Your task to perform on an android device: turn off location history Image 0: 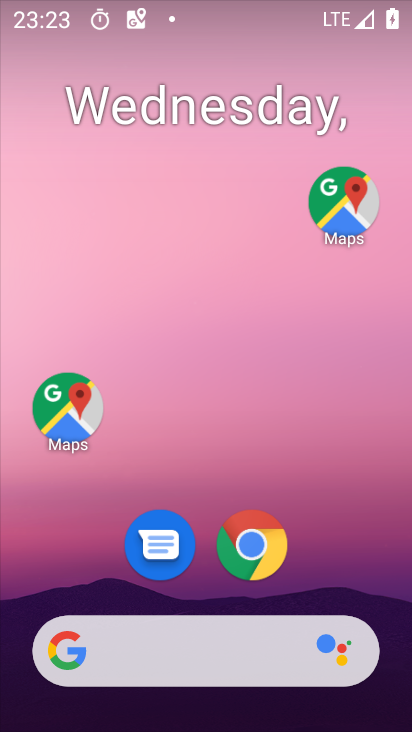
Step 0: drag from (358, 618) to (351, 45)
Your task to perform on an android device: turn off location history Image 1: 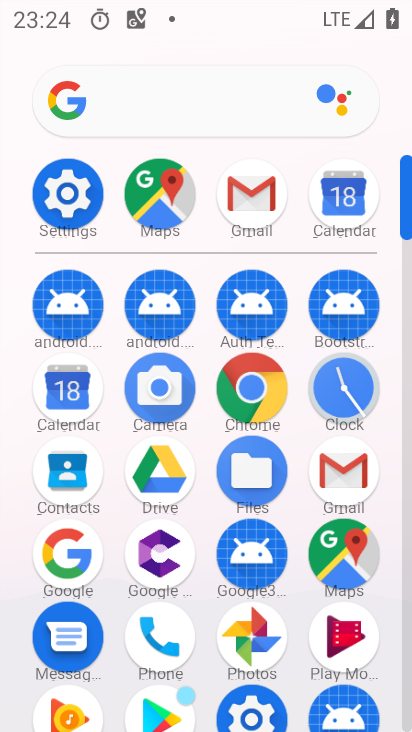
Step 1: click (64, 204)
Your task to perform on an android device: turn off location history Image 2: 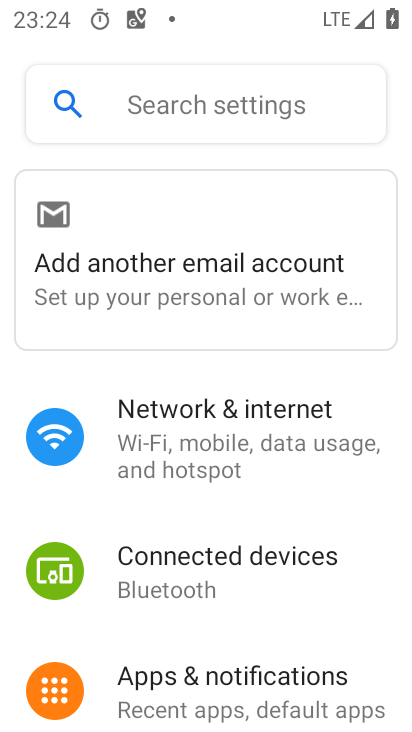
Step 2: drag from (209, 619) to (240, 174)
Your task to perform on an android device: turn off location history Image 3: 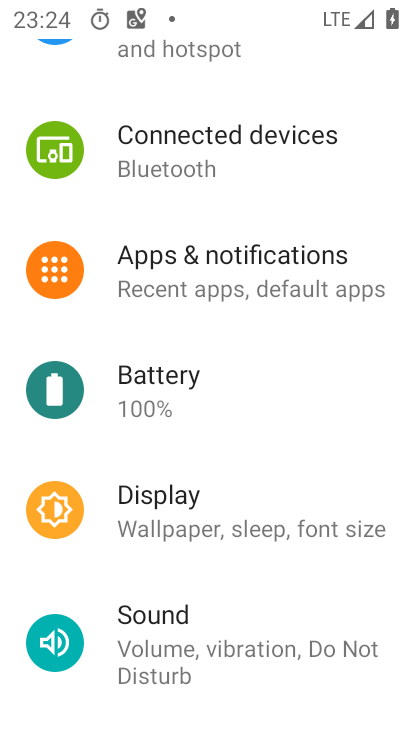
Step 3: drag from (159, 582) to (243, 87)
Your task to perform on an android device: turn off location history Image 4: 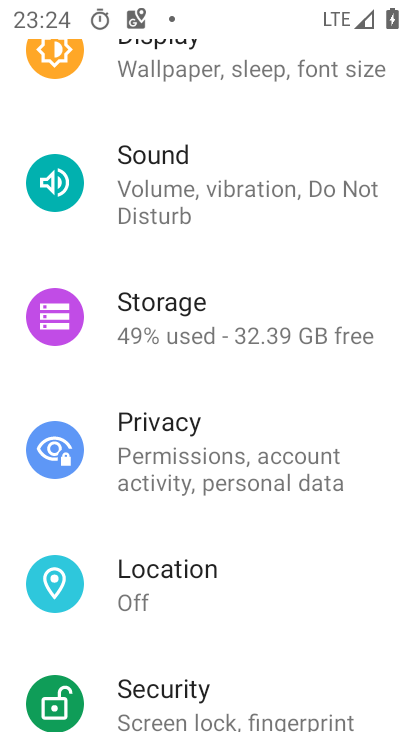
Step 4: click (232, 583)
Your task to perform on an android device: turn off location history Image 5: 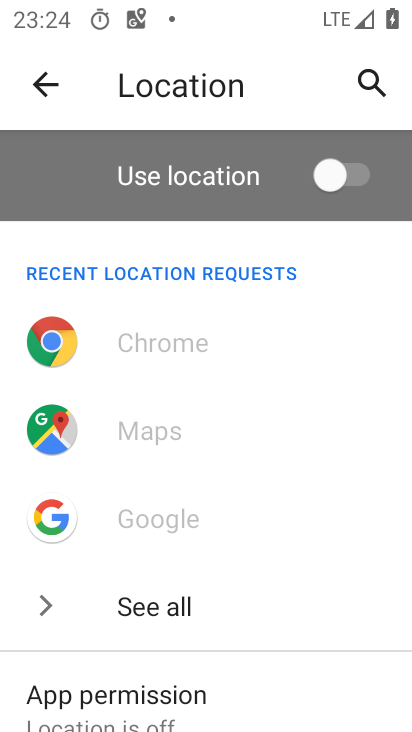
Step 5: drag from (268, 632) to (327, 157)
Your task to perform on an android device: turn off location history Image 6: 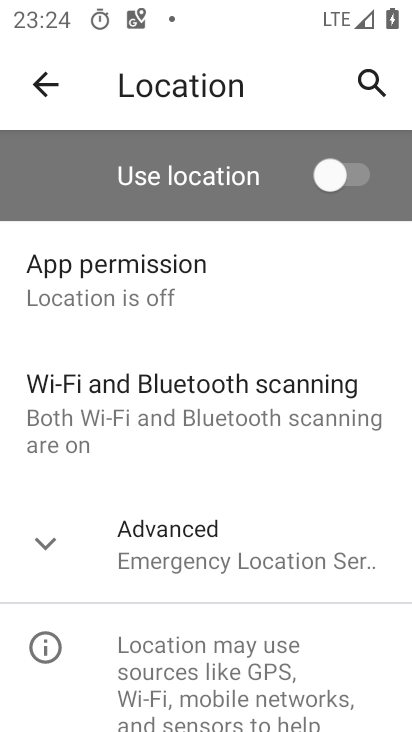
Step 6: click (204, 569)
Your task to perform on an android device: turn off location history Image 7: 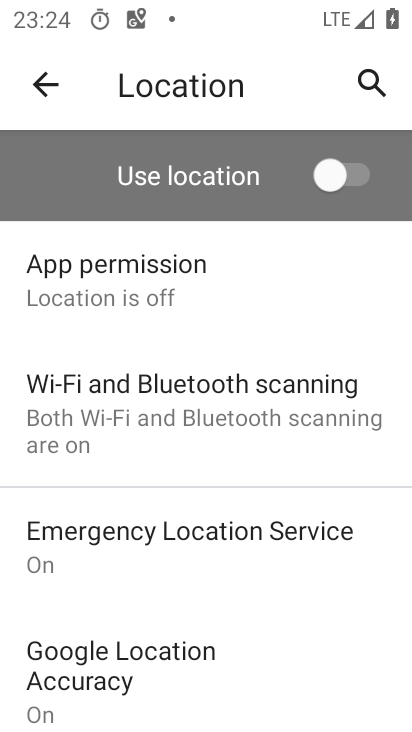
Step 7: drag from (201, 631) to (218, 423)
Your task to perform on an android device: turn off location history Image 8: 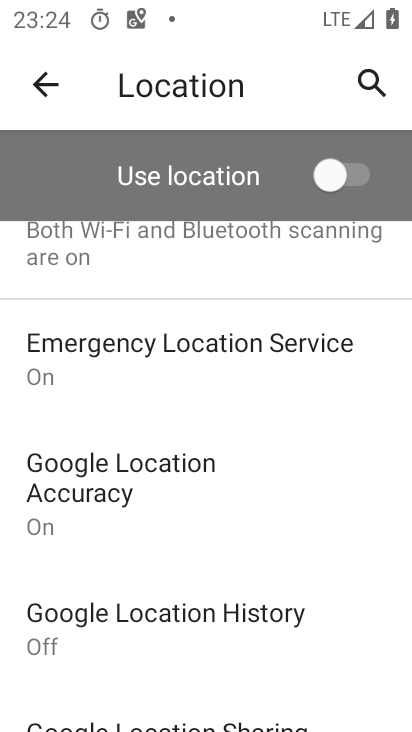
Step 8: click (221, 627)
Your task to perform on an android device: turn off location history Image 9: 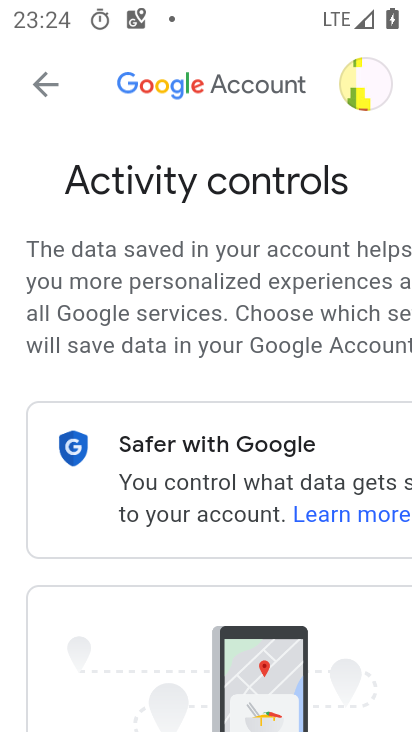
Step 9: drag from (179, 593) to (196, 226)
Your task to perform on an android device: turn off location history Image 10: 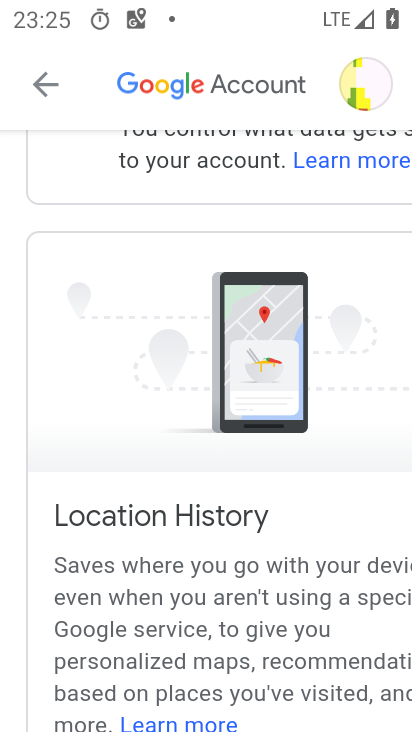
Step 10: drag from (194, 538) to (147, 324)
Your task to perform on an android device: turn off location history Image 11: 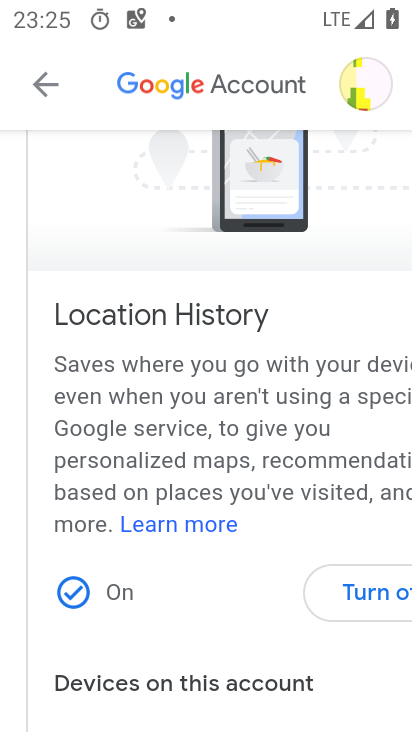
Step 11: click (363, 596)
Your task to perform on an android device: turn off location history Image 12: 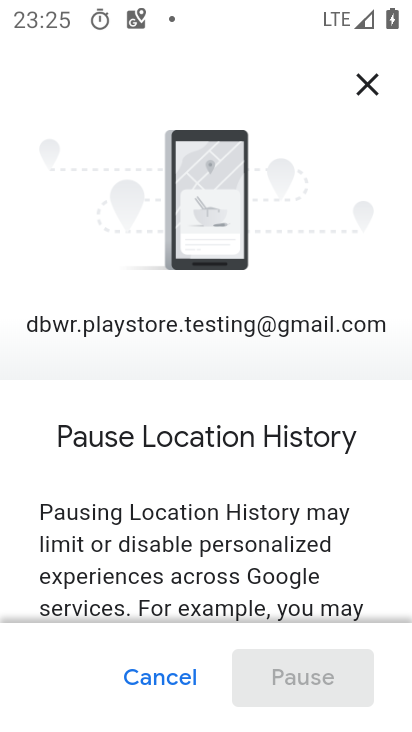
Step 12: drag from (136, 594) to (206, 252)
Your task to perform on an android device: turn off location history Image 13: 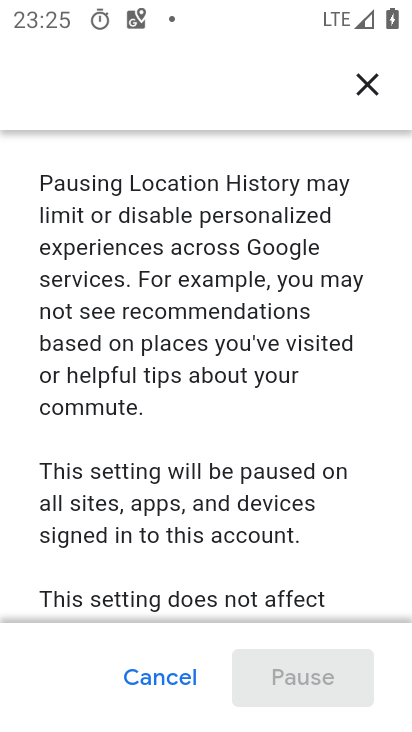
Step 13: drag from (127, 562) to (205, 260)
Your task to perform on an android device: turn off location history Image 14: 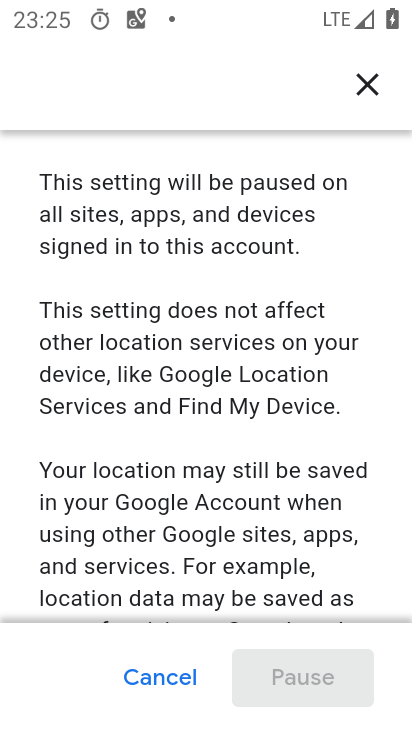
Step 14: drag from (226, 544) to (257, 195)
Your task to perform on an android device: turn off location history Image 15: 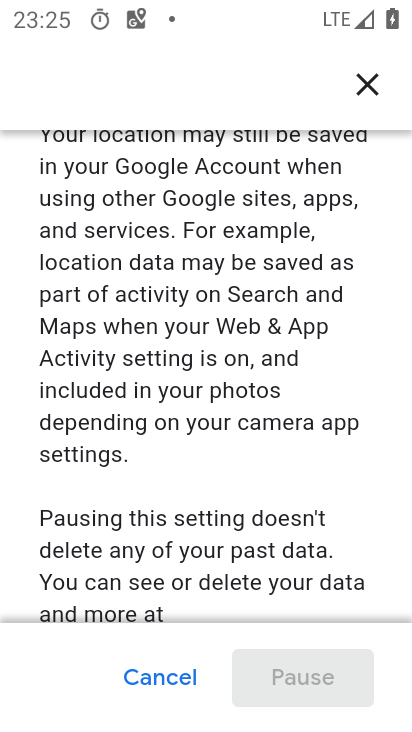
Step 15: drag from (226, 515) to (311, 148)
Your task to perform on an android device: turn off location history Image 16: 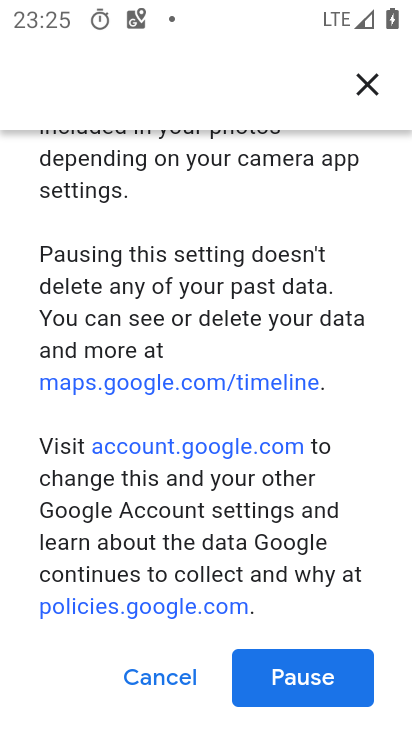
Step 16: click (267, 694)
Your task to perform on an android device: turn off location history Image 17: 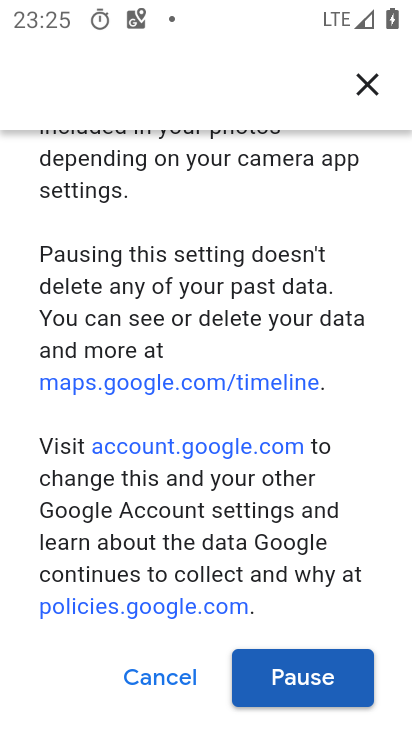
Step 17: click (279, 674)
Your task to perform on an android device: turn off location history Image 18: 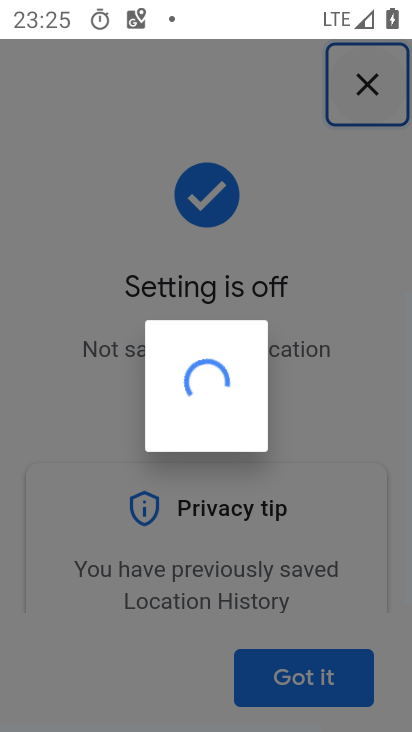
Step 18: click (288, 668)
Your task to perform on an android device: turn off location history Image 19: 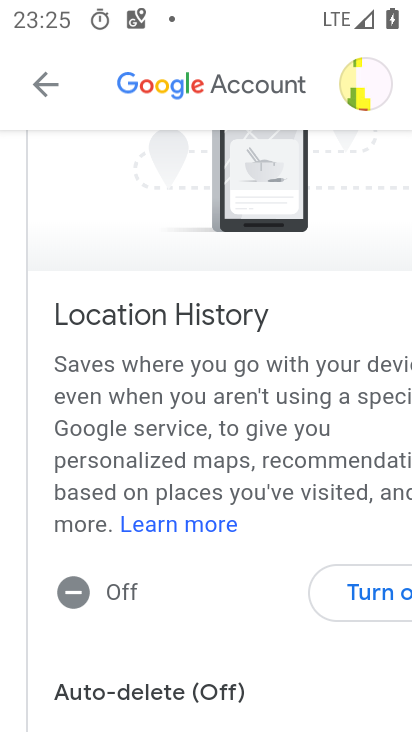
Step 19: task complete